Your task to perform on an android device: delete browsing data in the chrome app Image 0: 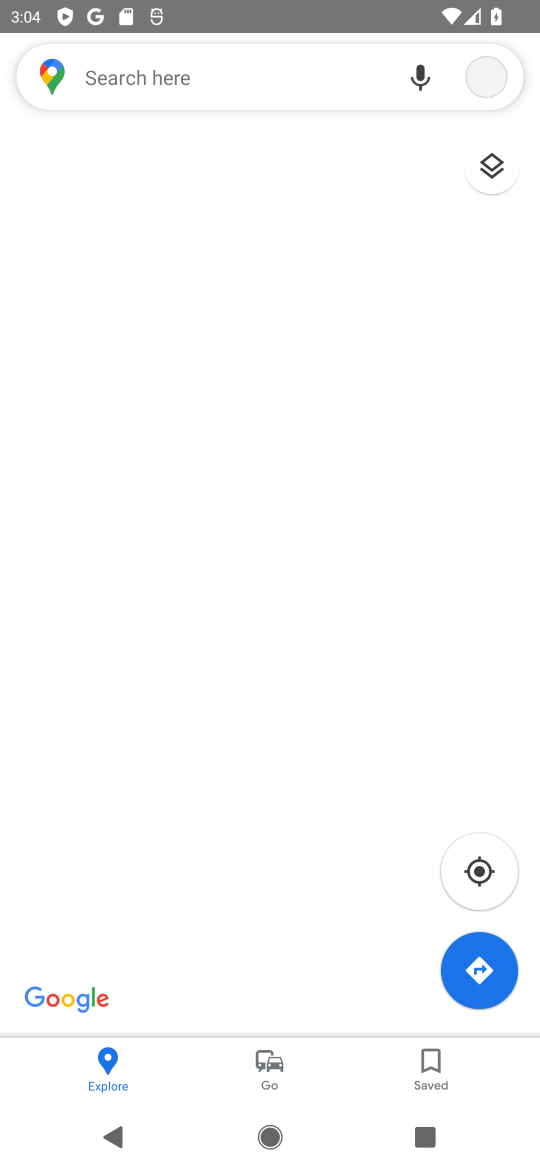
Step 0: press home button
Your task to perform on an android device: delete browsing data in the chrome app Image 1: 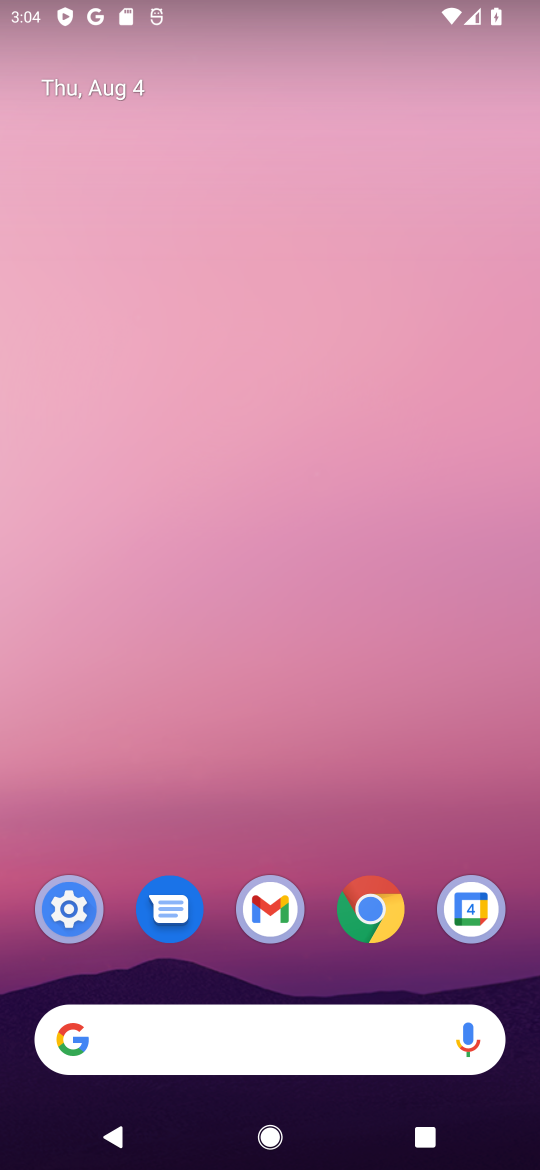
Step 1: click (367, 914)
Your task to perform on an android device: delete browsing data in the chrome app Image 2: 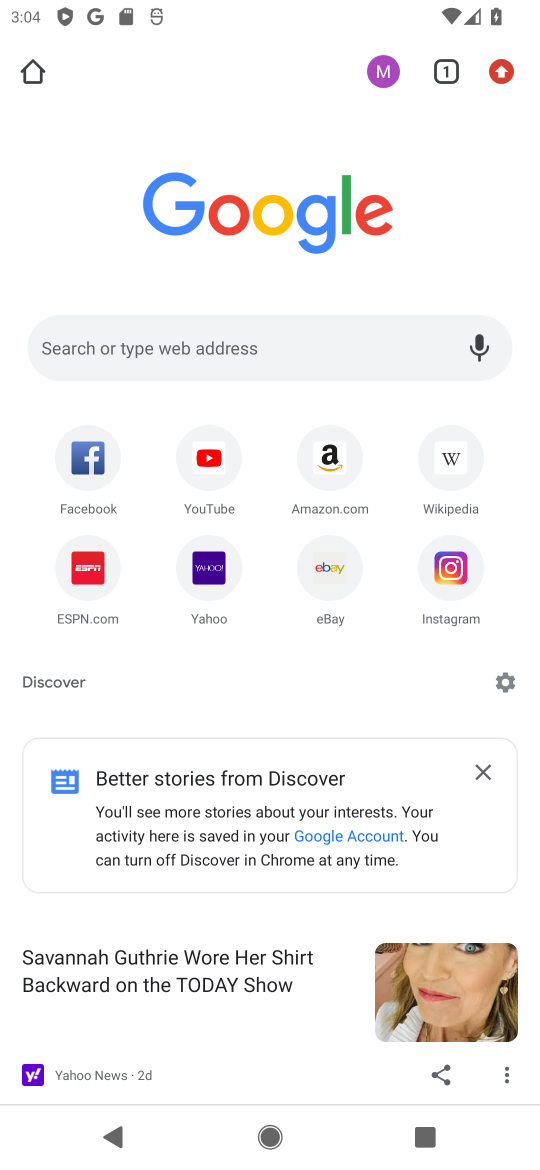
Step 2: drag from (498, 84) to (328, 734)
Your task to perform on an android device: delete browsing data in the chrome app Image 3: 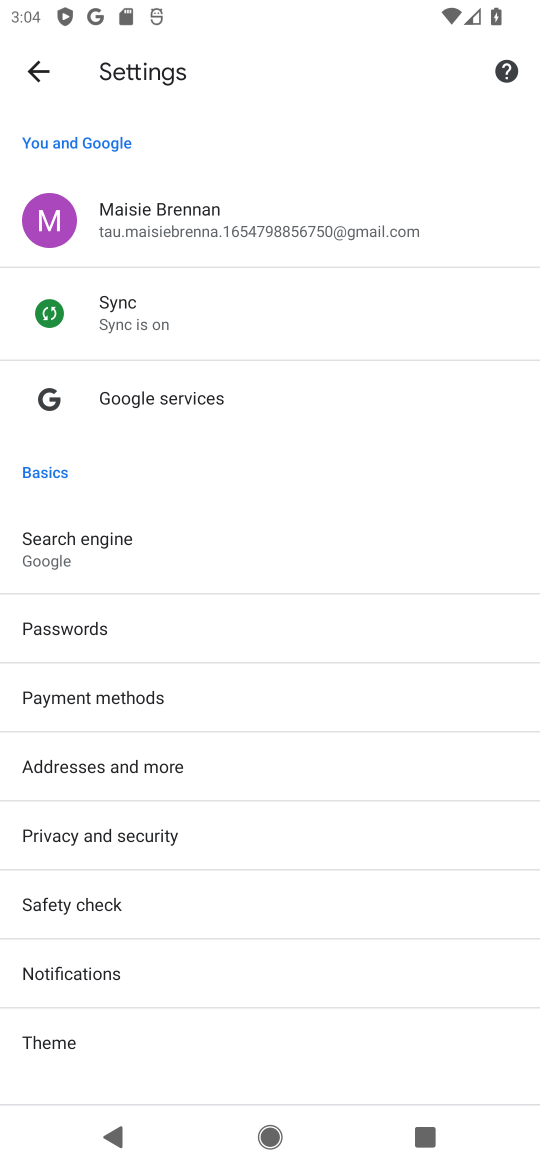
Step 3: drag from (203, 1018) to (419, 395)
Your task to perform on an android device: delete browsing data in the chrome app Image 4: 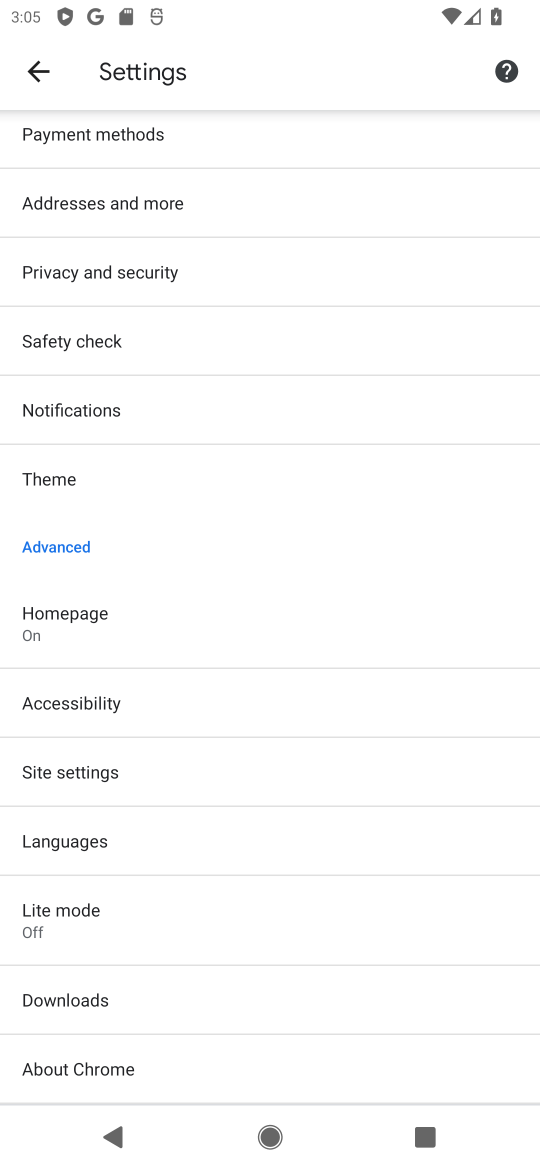
Step 4: click (162, 279)
Your task to perform on an android device: delete browsing data in the chrome app Image 5: 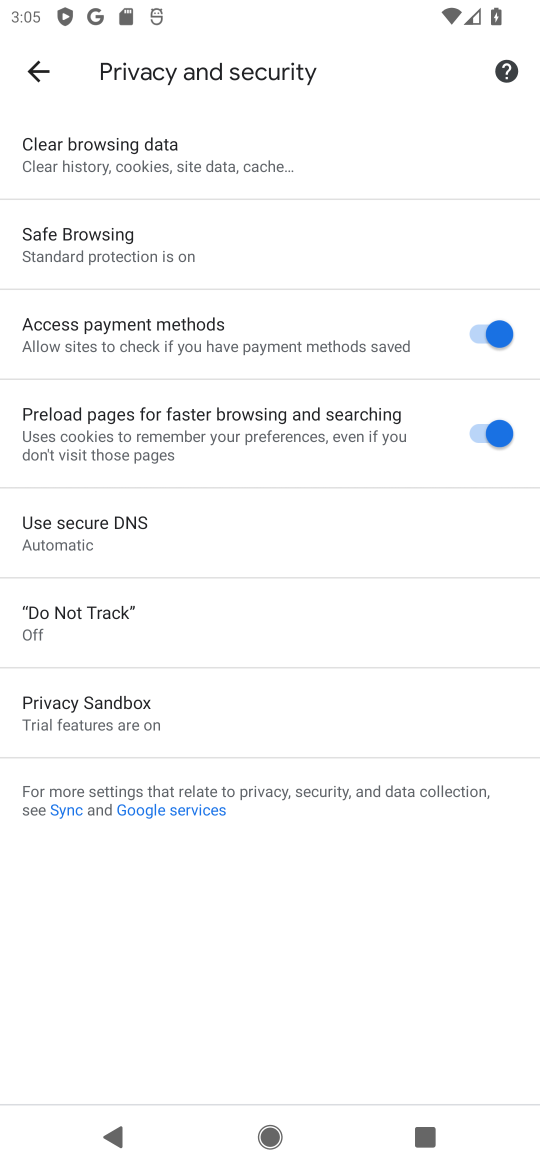
Step 5: click (222, 172)
Your task to perform on an android device: delete browsing data in the chrome app Image 6: 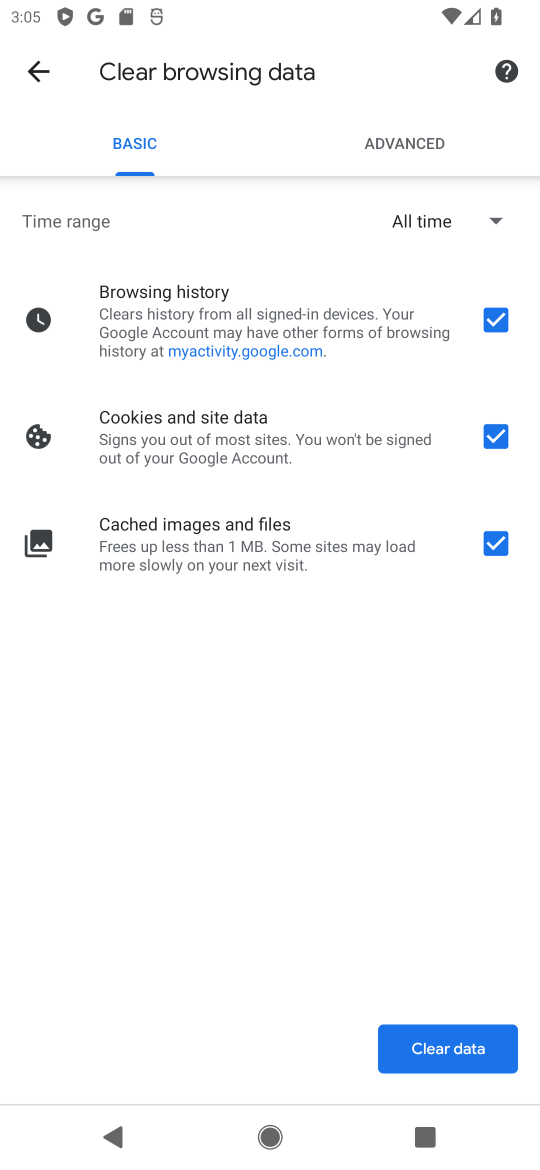
Step 6: click (433, 1045)
Your task to perform on an android device: delete browsing data in the chrome app Image 7: 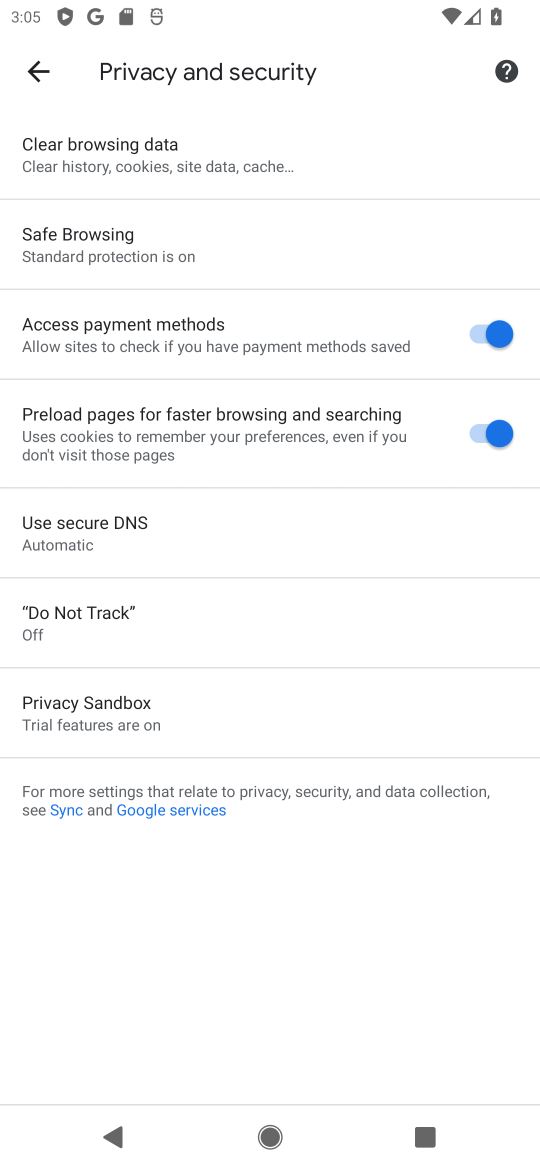
Step 7: task complete